Your task to perform on an android device: Open Google Chrome and click the shortcut for Amazon.com Image 0: 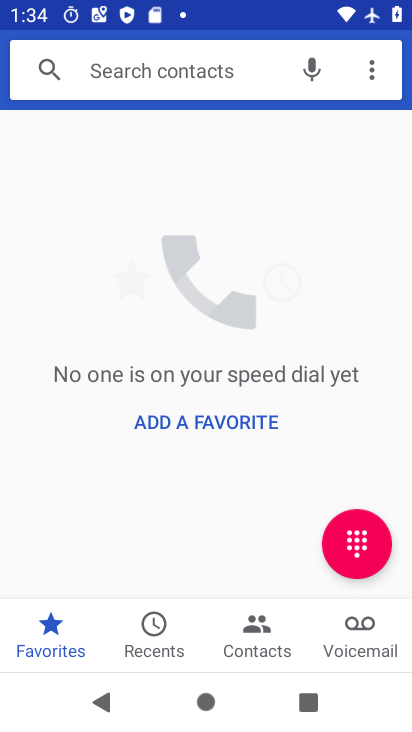
Step 0: press home button
Your task to perform on an android device: Open Google Chrome and click the shortcut for Amazon.com Image 1: 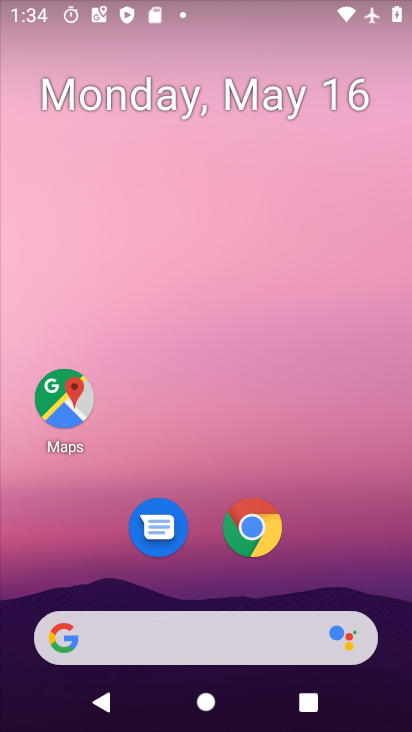
Step 1: click (253, 536)
Your task to perform on an android device: Open Google Chrome and click the shortcut for Amazon.com Image 2: 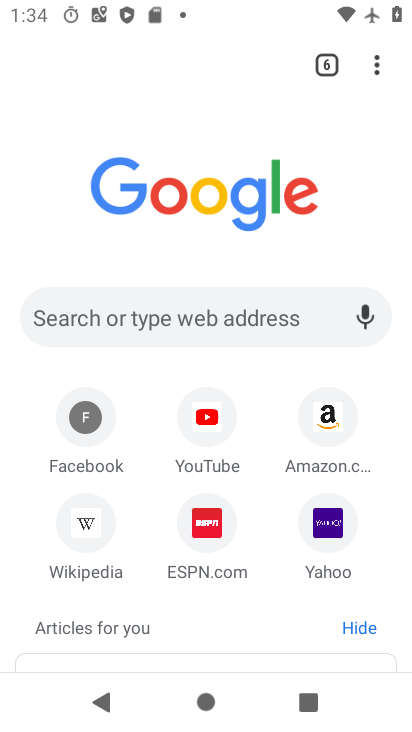
Step 2: click (329, 417)
Your task to perform on an android device: Open Google Chrome and click the shortcut for Amazon.com Image 3: 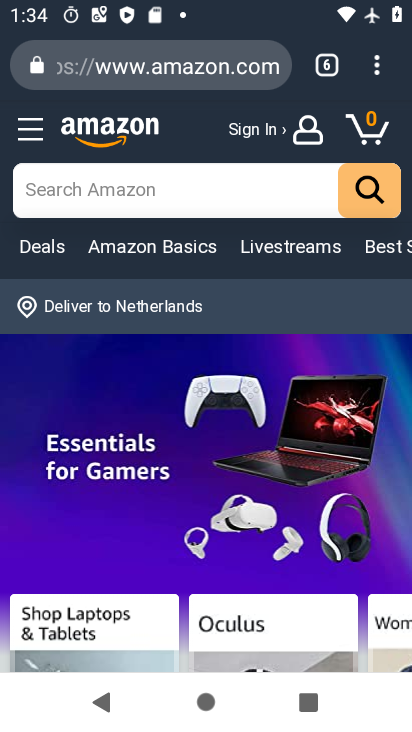
Step 3: task complete